Your task to perform on an android device: Open Google Chrome Image 0: 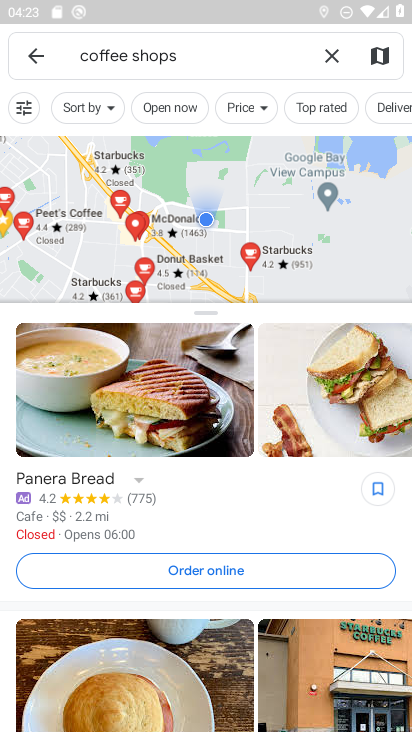
Step 0: press back button
Your task to perform on an android device: Open Google Chrome Image 1: 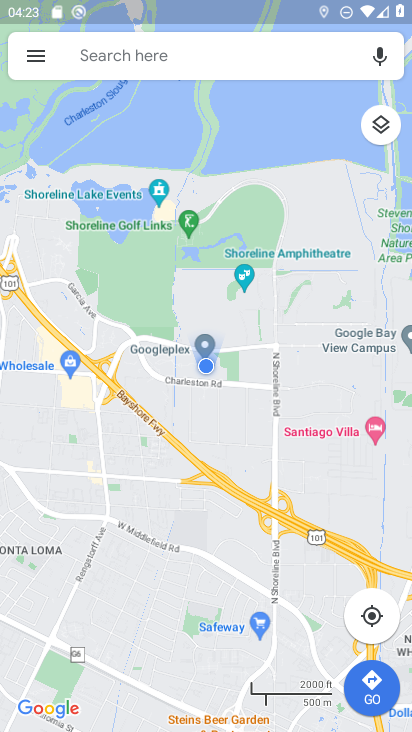
Step 1: press home button
Your task to perform on an android device: Open Google Chrome Image 2: 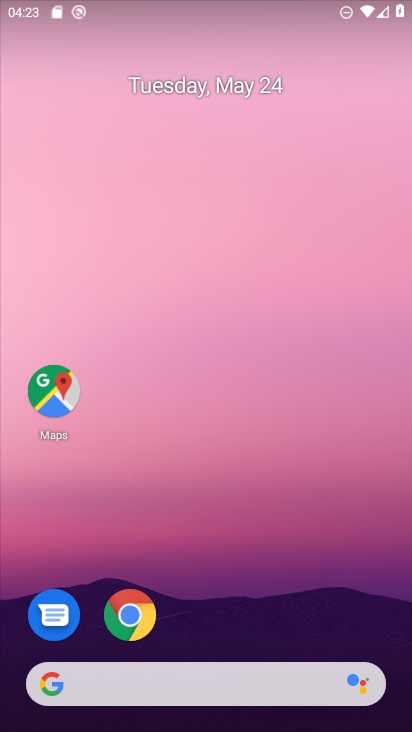
Step 2: drag from (272, 547) to (282, 32)
Your task to perform on an android device: Open Google Chrome Image 3: 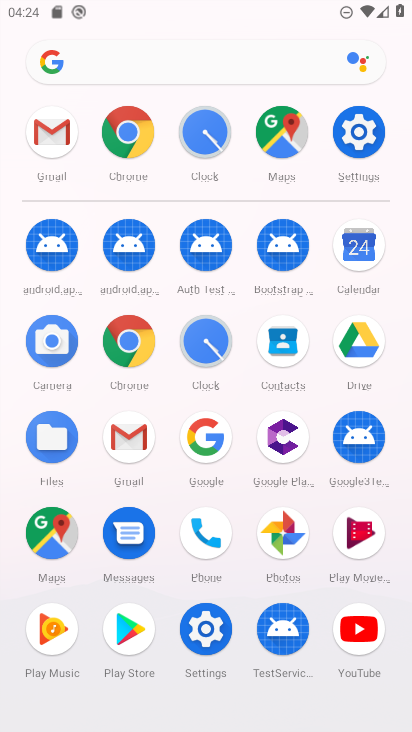
Step 3: click (125, 131)
Your task to perform on an android device: Open Google Chrome Image 4: 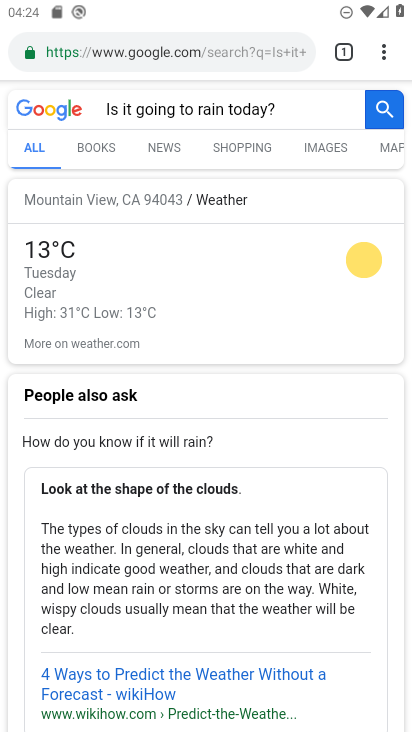
Step 4: task complete